Your task to perform on an android device: make emails show in primary in the gmail app Image 0: 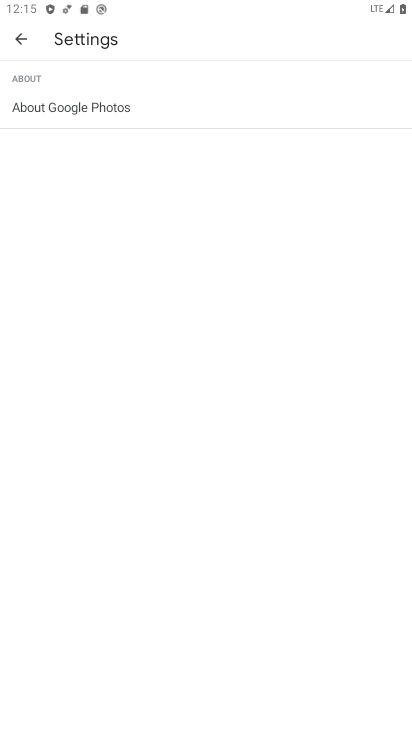
Step 0: press home button
Your task to perform on an android device: make emails show in primary in the gmail app Image 1: 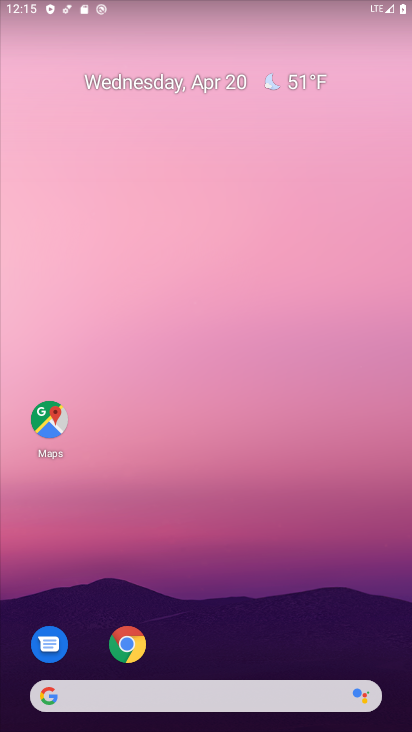
Step 1: drag from (209, 728) to (192, 51)
Your task to perform on an android device: make emails show in primary in the gmail app Image 2: 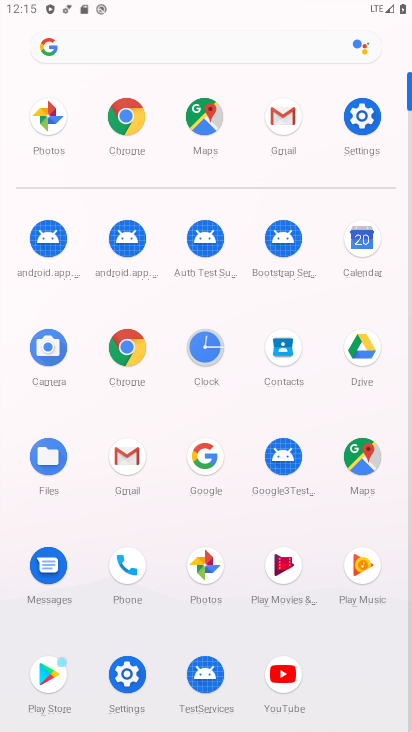
Step 2: click (285, 113)
Your task to perform on an android device: make emails show in primary in the gmail app Image 3: 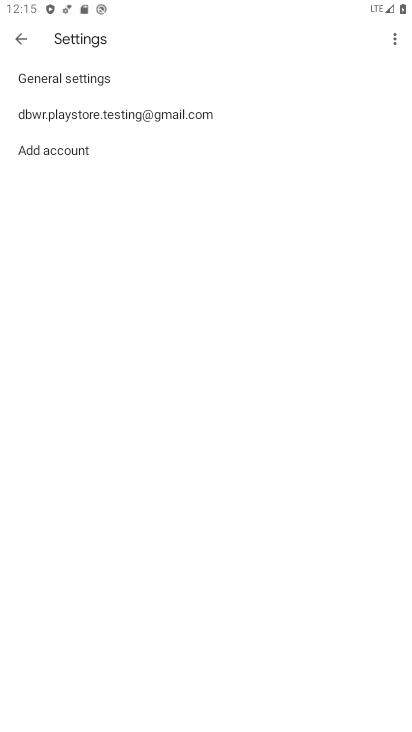
Step 3: click (180, 110)
Your task to perform on an android device: make emails show in primary in the gmail app Image 4: 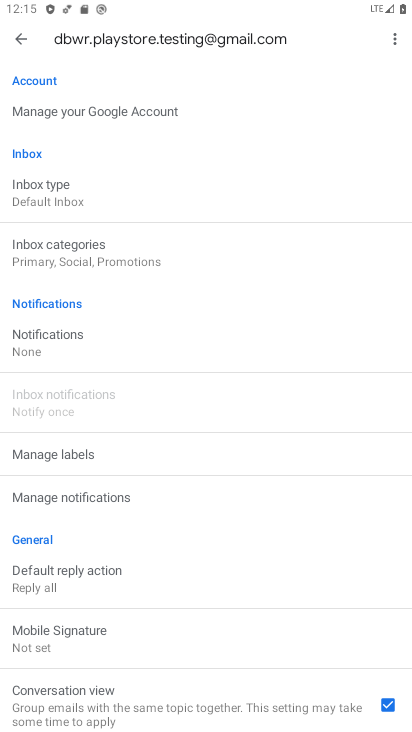
Step 4: click (59, 250)
Your task to perform on an android device: make emails show in primary in the gmail app Image 5: 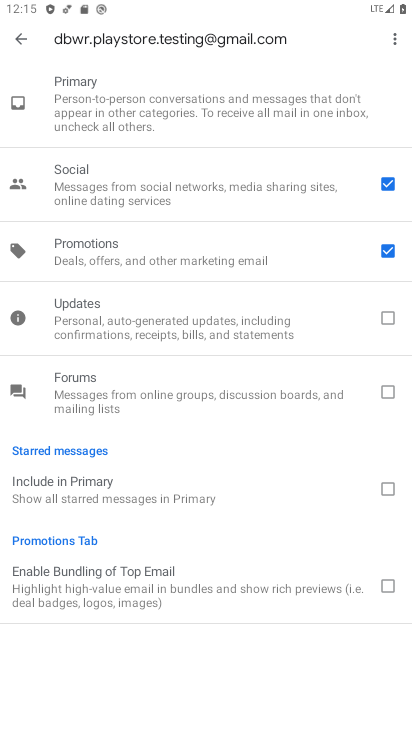
Step 5: click (387, 178)
Your task to perform on an android device: make emails show in primary in the gmail app Image 6: 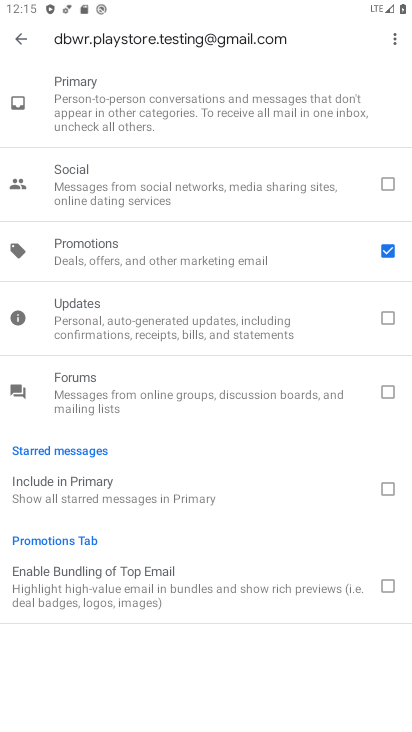
Step 6: click (386, 248)
Your task to perform on an android device: make emails show in primary in the gmail app Image 7: 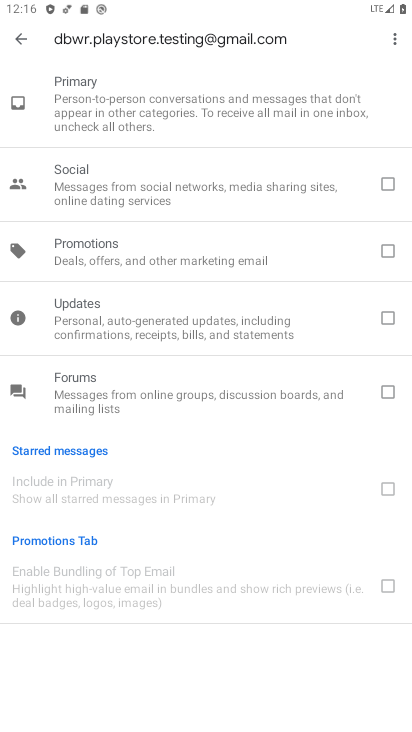
Step 7: click (24, 32)
Your task to perform on an android device: make emails show in primary in the gmail app Image 8: 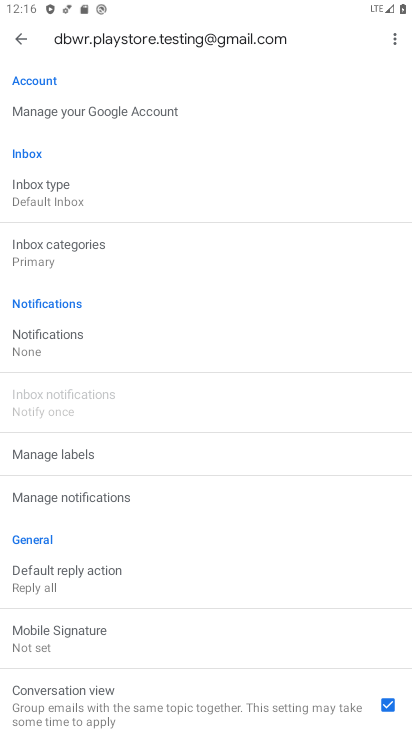
Step 8: task complete